Your task to perform on an android device: read, delete, or share a saved page in the chrome app Image 0: 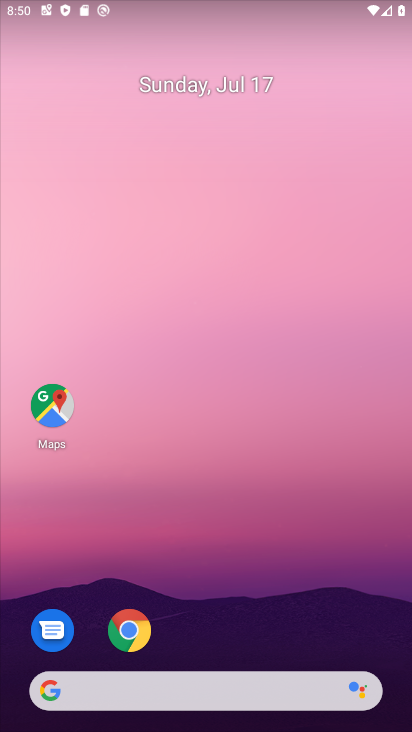
Step 0: drag from (295, 684) to (321, 6)
Your task to perform on an android device: read, delete, or share a saved page in the chrome app Image 1: 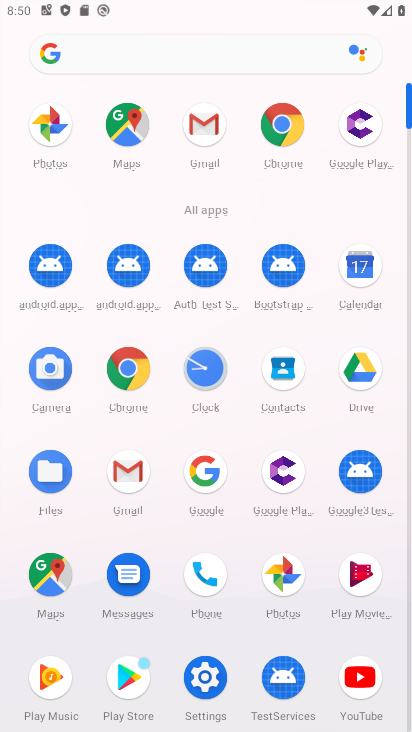
Step 1: click (138, 376)
Your task to perform on an android device: read, delete, or share a saved page in the chrome app Image 2: 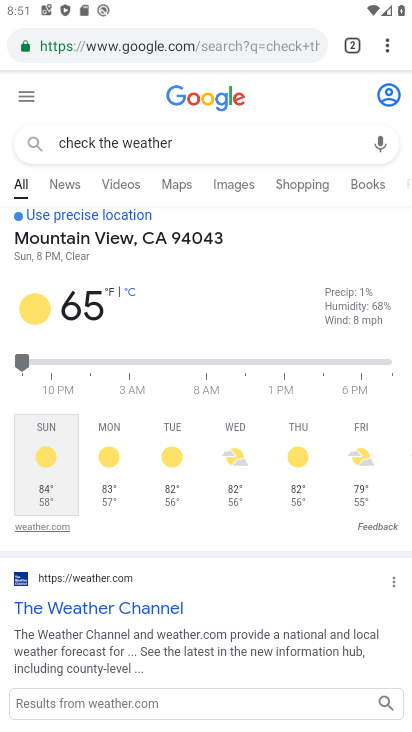
Step 2: click (389, 49)
Your task to perform on an android device: read, delete, or share a saved page in the chrome app Image 3: 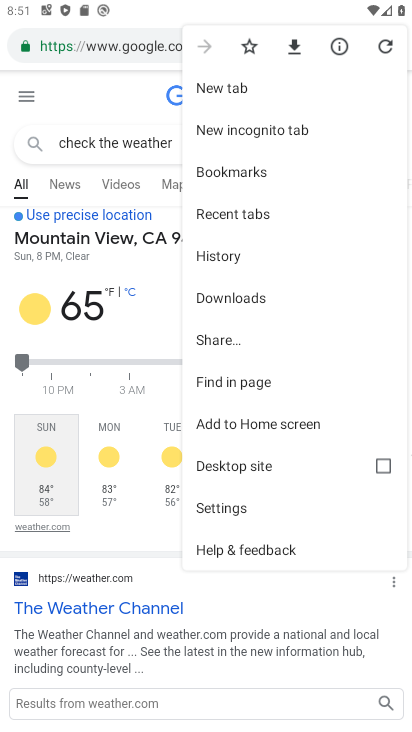
Step 3: click (249, 296)
Your task to perform on an android device: read, delete, or share a saved page in the chrome app Image 4: 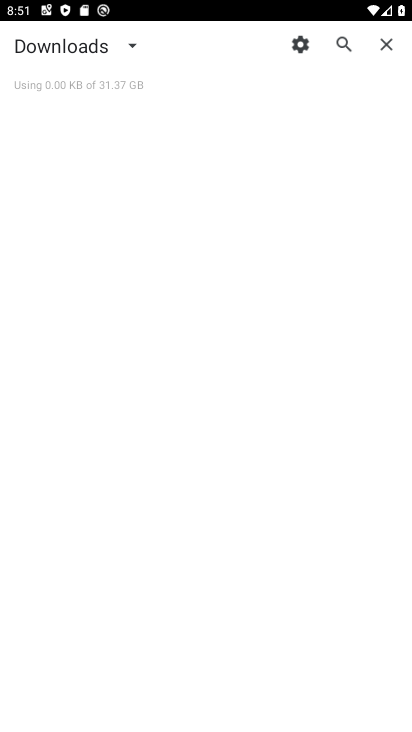
Step 4: task complete